Your task to perform on an android device: create a new album in the google photos Image 0: 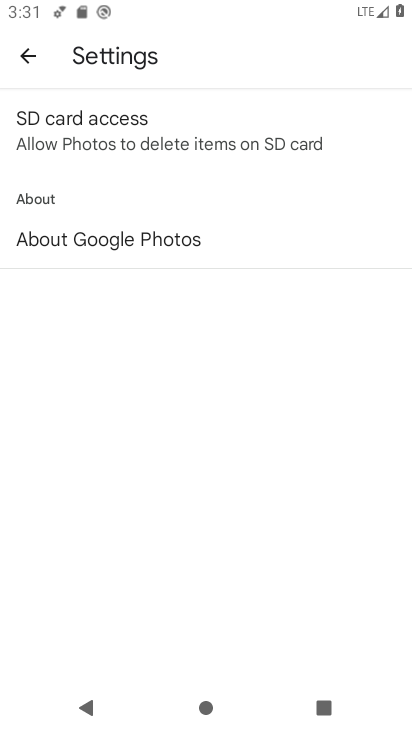
Step 0: press home button
Your task to perform on an android device: create a new album in the google photos Image 1: 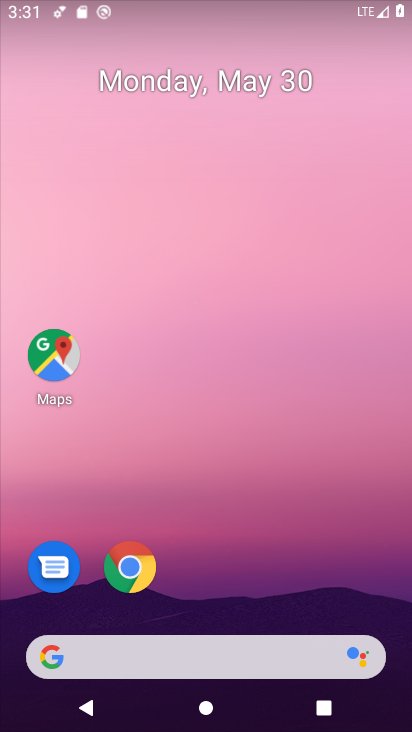
Step 1: drag from (256, 596) to (294, 23)
Your task to perform on an android device: create a new album in the google photos Image 2: 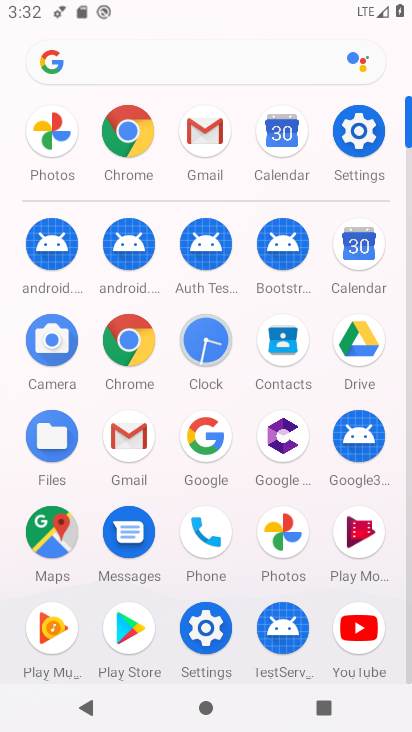
Step 2: click (277, 533)
Your task to perform on an android device: create a new album in the google photos Image 3: 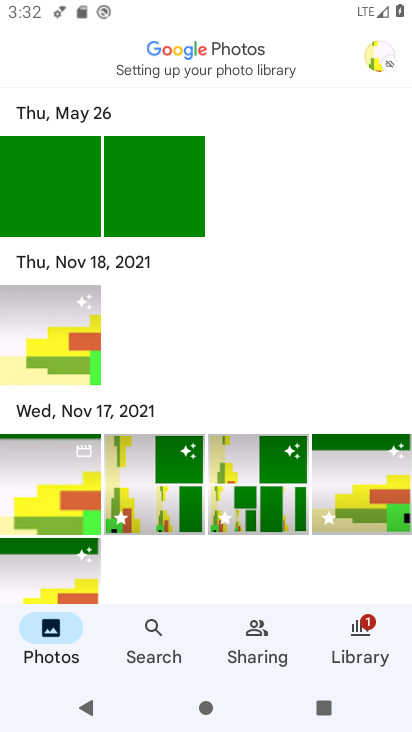
Step 3: click (351, 652)
Your task to perform on an android device: create a new album in the google photos Image 4: 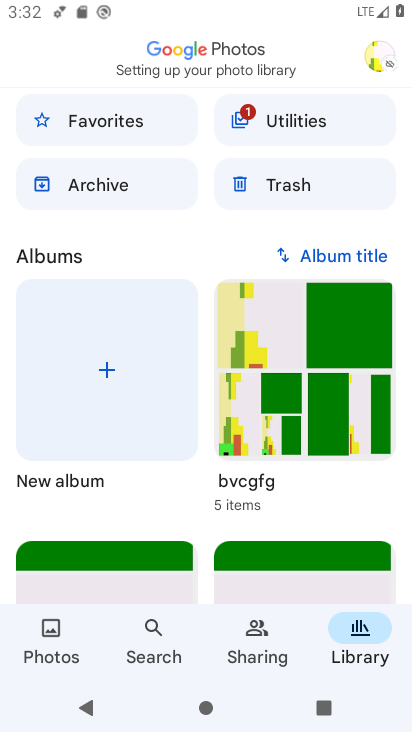
Step 4: click (96, 375)
Your task to perform on an android device: create a new album in the google photos Image 5: 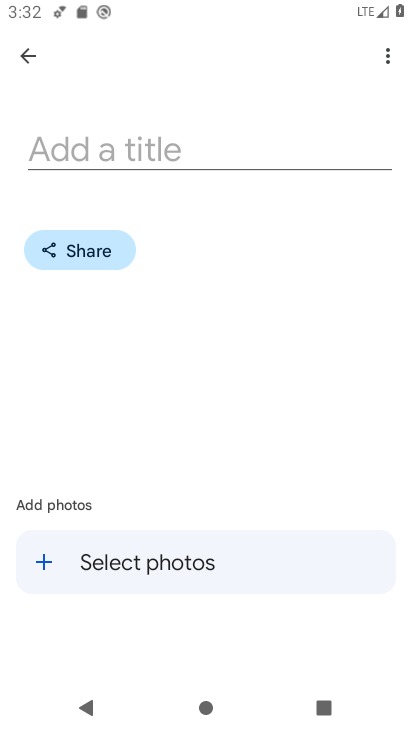
Step 5: click (176, 149)
Your task to perform on an android device: create a new album in the google photos Image 6: 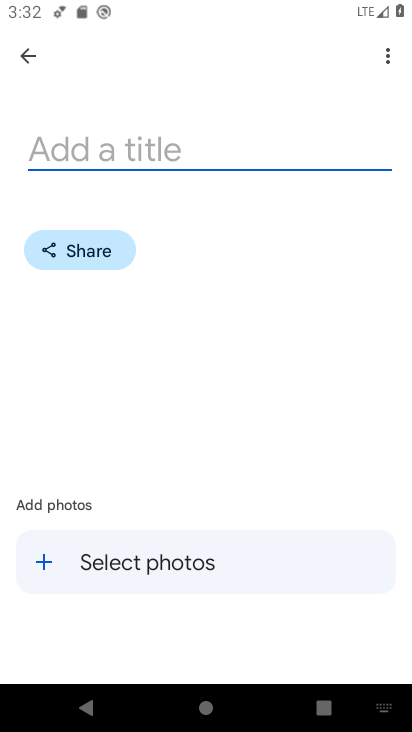
Step 6: type "qwaszxcv"
Your task to perform on an android device: create a new album in the google photos Image 7: 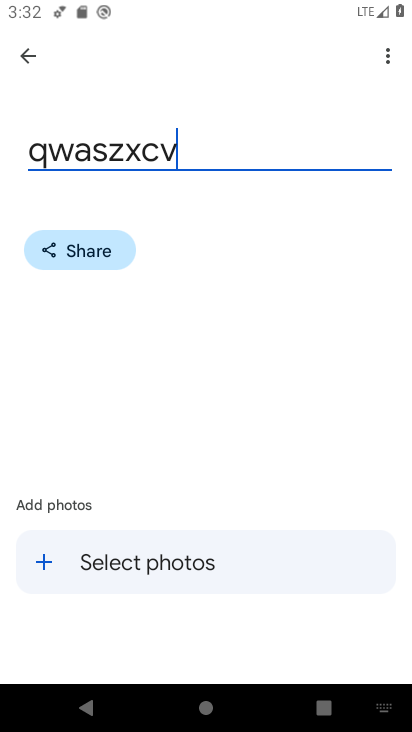
Step 7: click (47, 561)
Your task to perform on an android device: create a new album in the google photos Image 8: 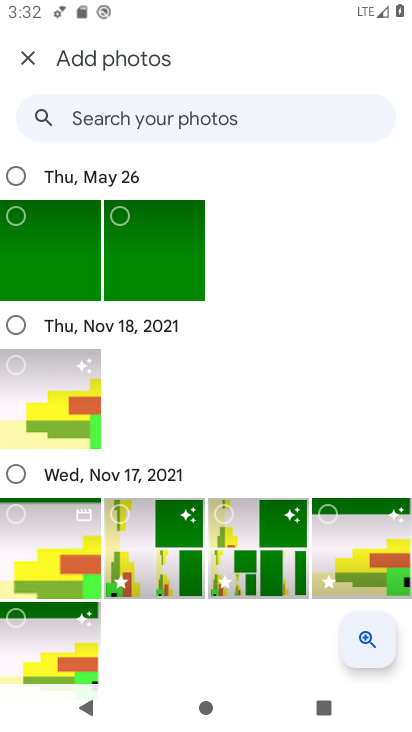
Step 8: click (9, 271)
Your task to perform on an android device: create a new album in the google photos Image 9: 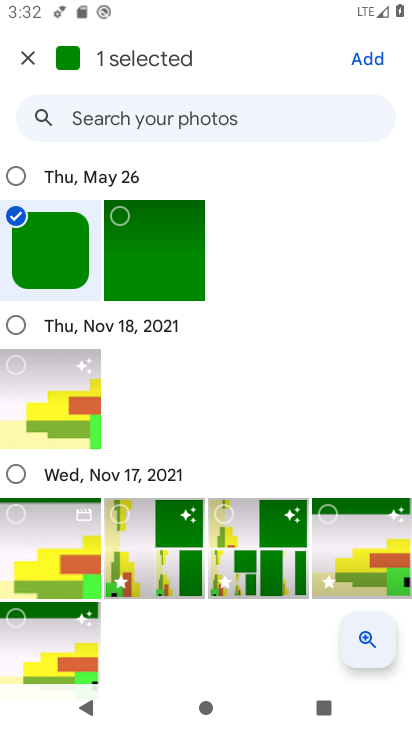
Step 9: click (358, 50)
Your task to perform on an android device: create a new album in the google photos Image 10: 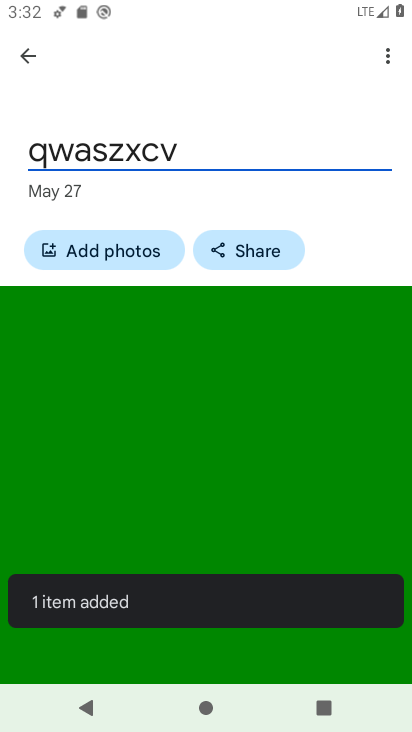
Step 10: task complete